Your task to perform on an android device: What's the weather going to be this weekend? Image 0: 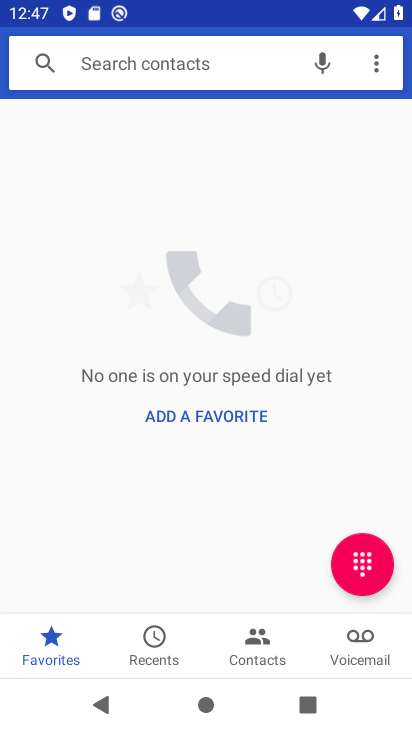
Step 0: drag from (275, 616) to (294, 387)
Your task to perform on an android device: What's the weather going to be this weekend? Image 1: 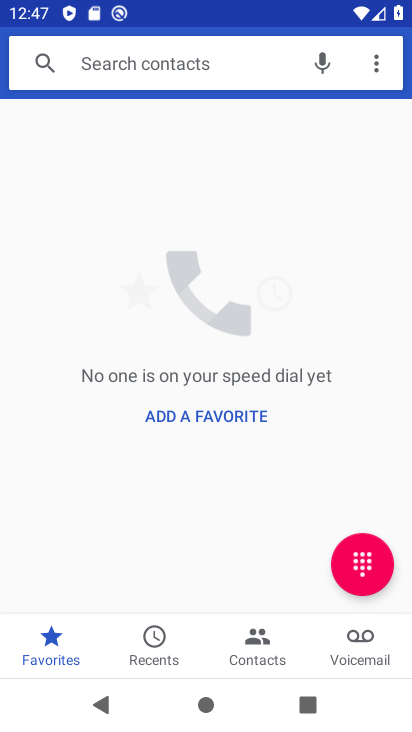
Step 1: press home button
Your task to perform on an android device: What's the weather going to be this weekend? Image 2: 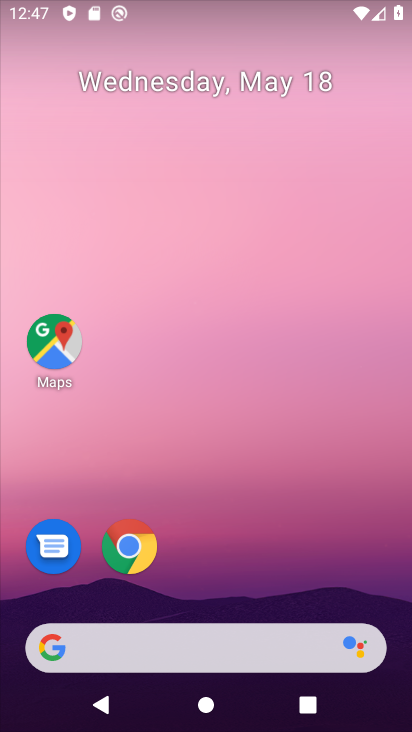
Step 2: drag from (203, 722) to (291, 103)
Your task to perform on an android device: What's the weather going to be this weekend? Image 3: 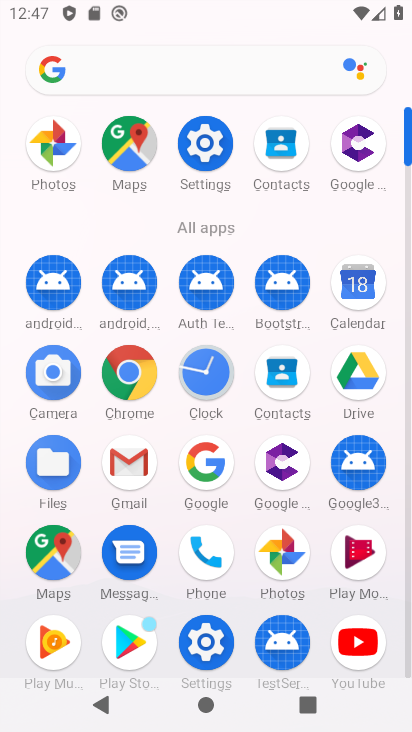
Step 3: click (209, 477)
Your task to perform on an android device: What's the weather going to be this weekend? Image 4: 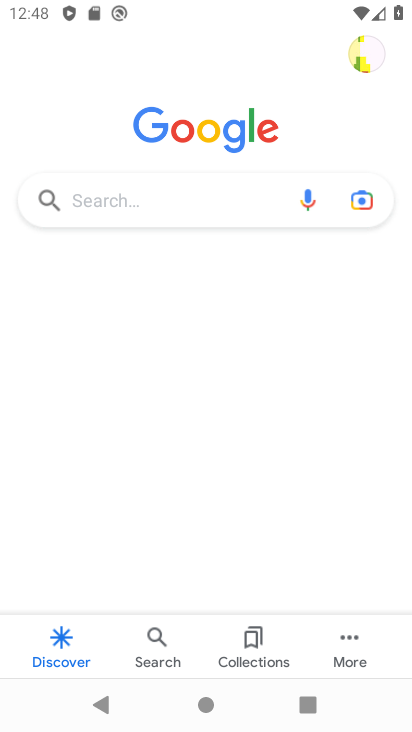
Step 4: click (196, 202)
Your task to perform on an android device: What's the weather going to be this weekend? Image 5: 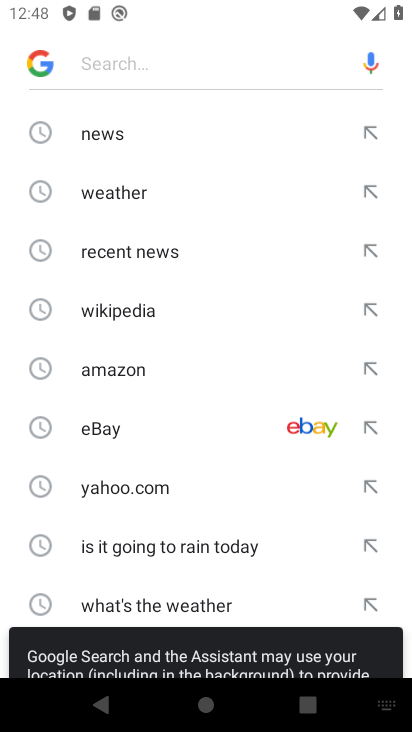
Step 5: click (155, 191)
Your task to perform on an android device: What's the weather going to be this weekend? Image 6: 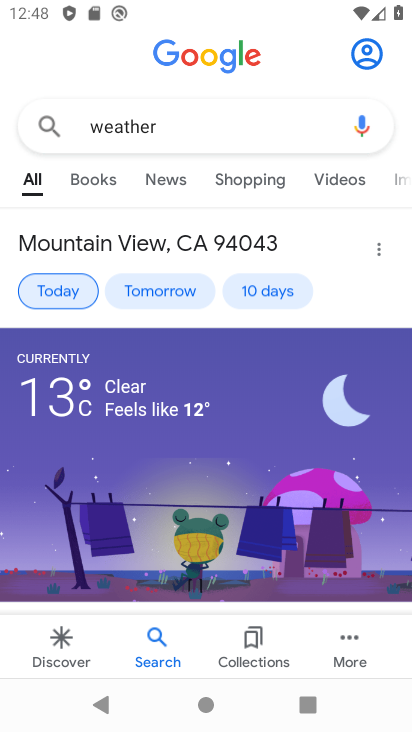
Step 6: click (269, 289)
Your task to perform on an android device: What's the weather going to be this weekend? Image 7: 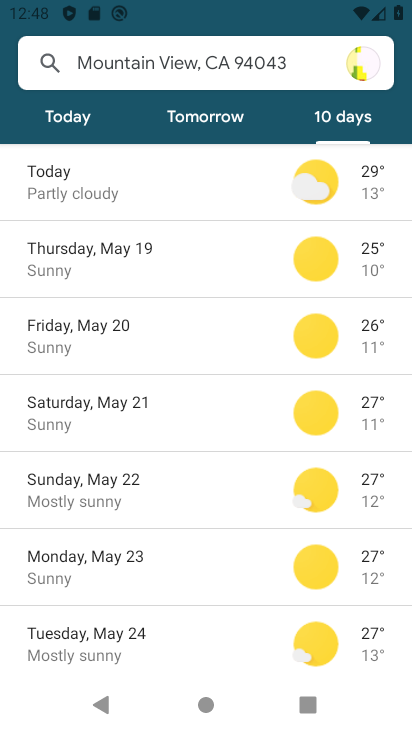
Step 7: task complete